Your task to perform on an android device: Go to Yahoo.com Image 0: 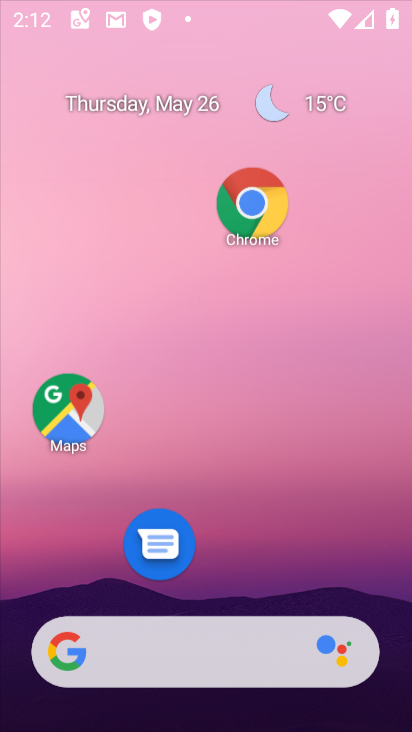
Step 0: click (398, 630)
Your task to perform on an android device: Go to Yahoo.com Image 1: 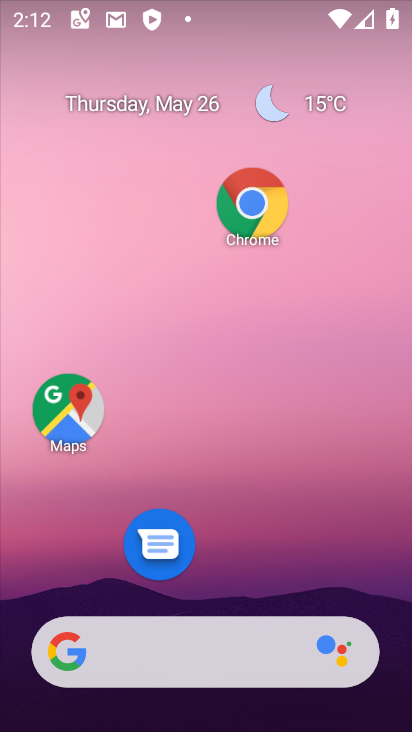
Step 1: click (211, 664)
Your task to perform on an android device: Go to Yahoo.com Image 2: 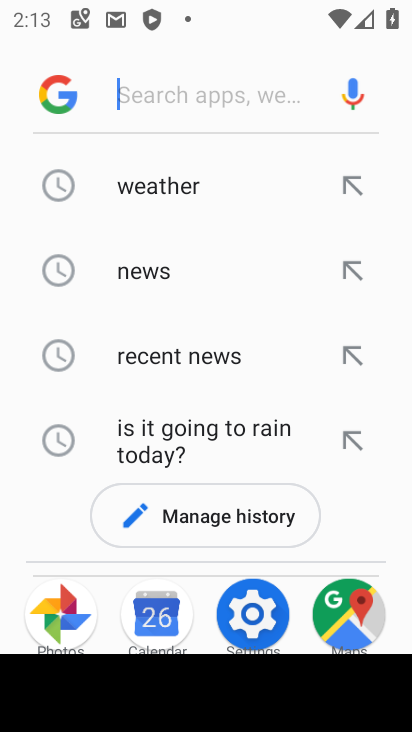
Step 2: type "yahoo.com"
Your task to perform on an android device: Go to Yahoo.com Image 3: 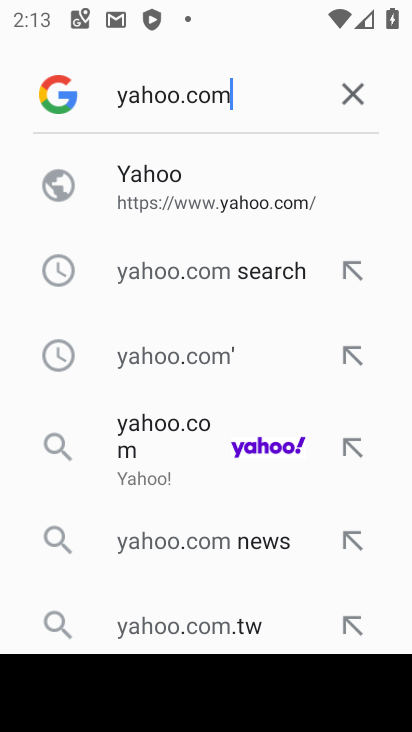
Step 3: click (245, 190)
Your task to perform on an android device: Go to Yahoo.com Image 4: 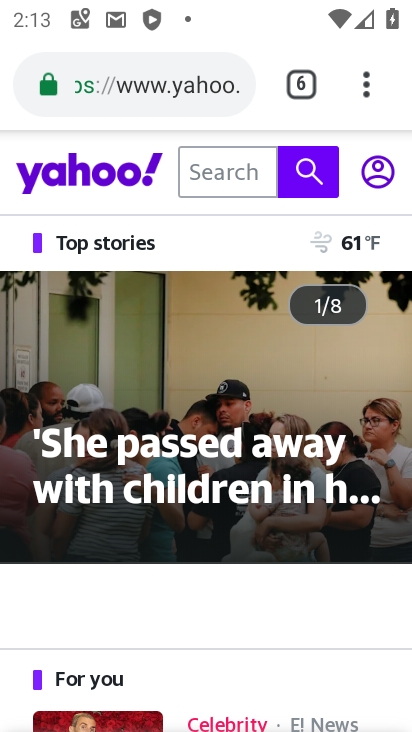
Step 4: task complete